Your task to perform on an android device: find which apps use the phone's location Image 0: 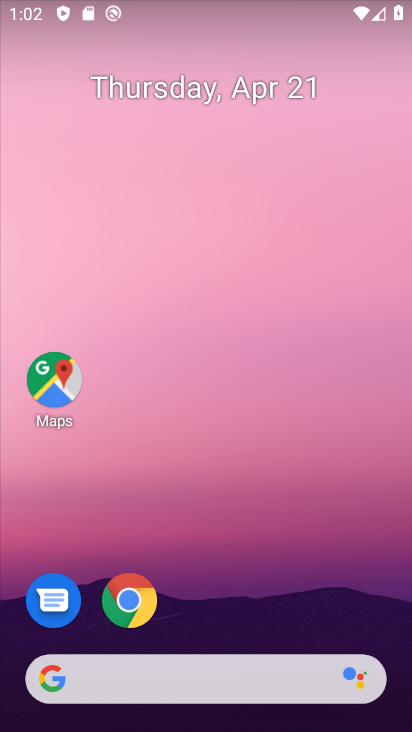
Step 0: drag from (243, 623) to (250, 98)
Your task to perform on an android device: find which apps use the phone's location Image 1: 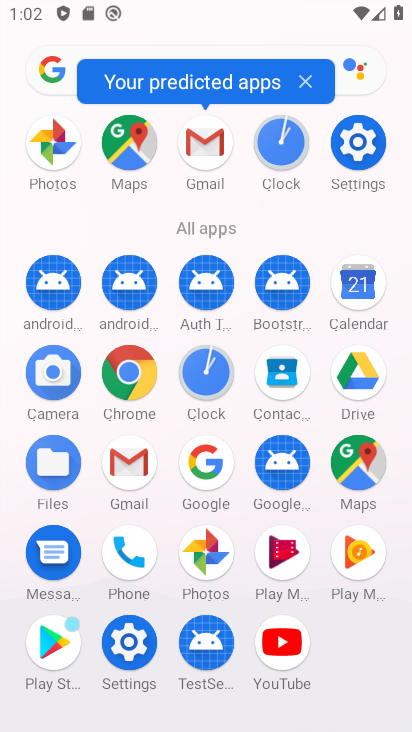
Step 1: click (349, 139)
Your task to perform on an android device: find which apps use the phone's location Image 2: 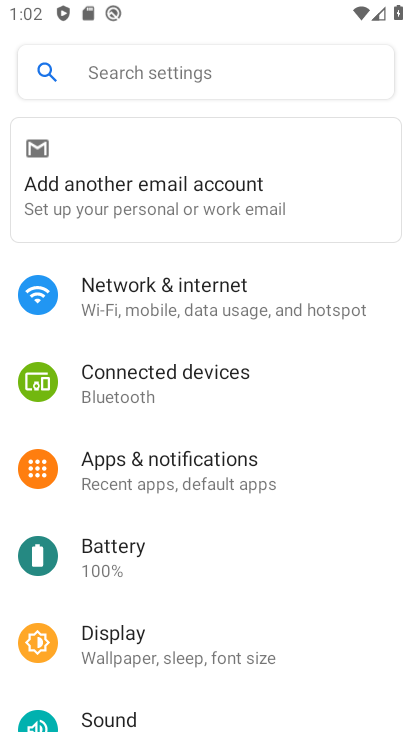
Step 2: drag from (225, 380) to (252, 250)
Your task to perform on an android device: find which apps use the phone's location Image 3: 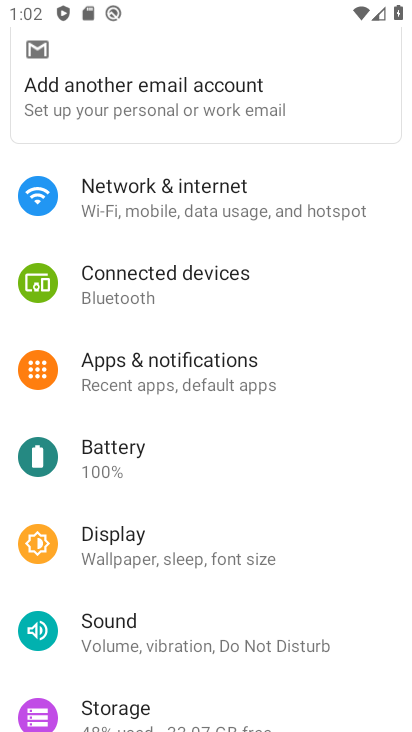
Step 3: drag from (253, 573) to (271, 236)
Your task to perform on an android device: find which apps use the phone's location Image 4: 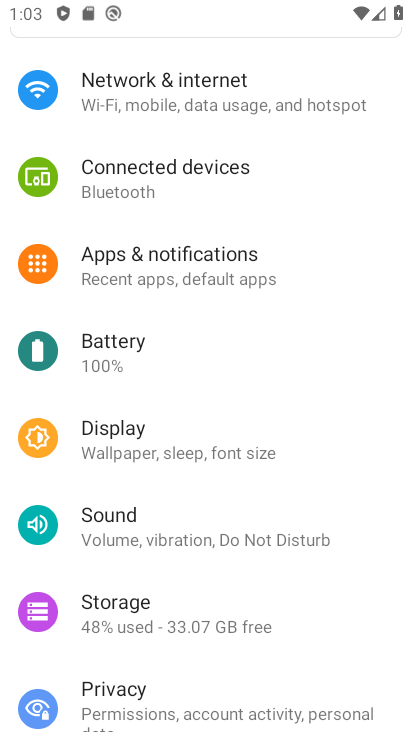
Step 4: drag from (206, 571) to (232, 286)
Your task to perform on an android device: find which apps use the phone's location Image 5: 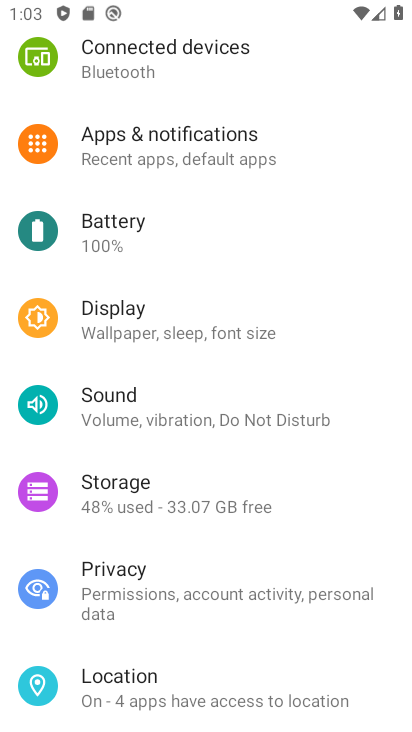
Step 5: click (172, 676)
Your task to perform on an android device: find which apps use the phone's location Image 6: 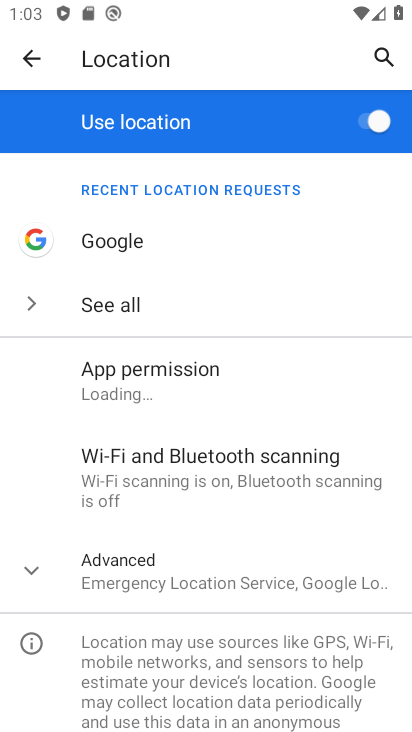
Step 6: click (191, 374)
Your task to perform on an android device: find which apps use the phone's location Image 7: 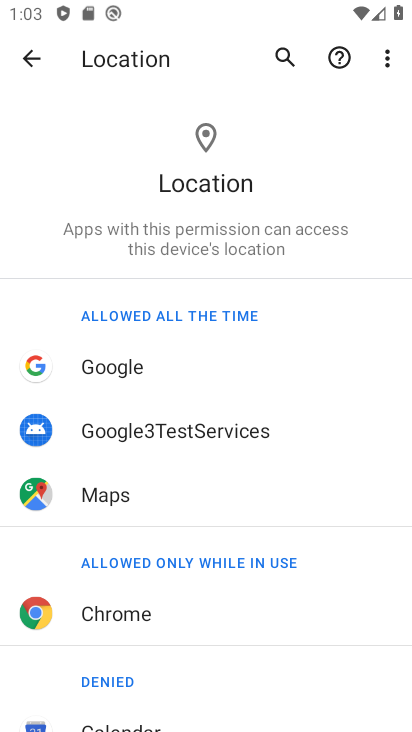
Step 7: task complete